Your task to perform on an android device: turn vacation reply on in the gmail app Image 0: 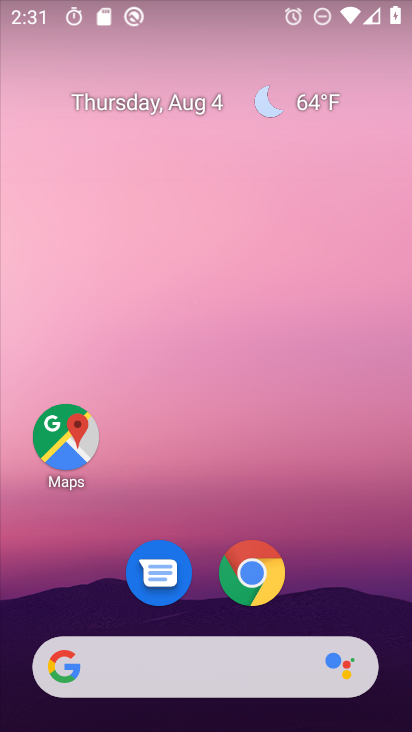
Step 0: drag from (363, 574) to (358, 133)
Your task to perform on an android device: turn vacation reply on in the gmail app Image 1: 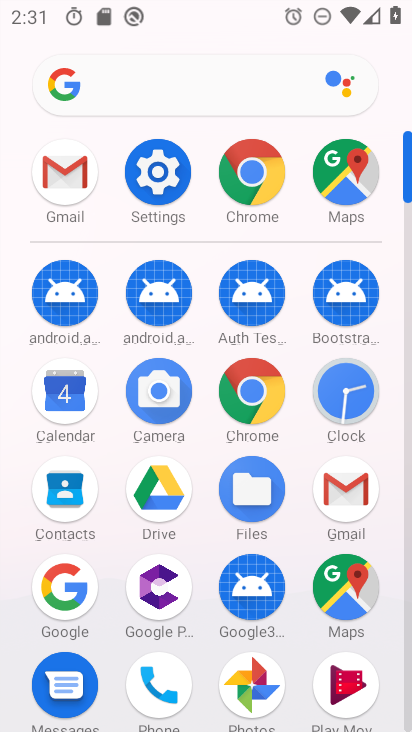
Step 1: click (353, 490)
Your task to perform on an android device: turn vacation reply on in the gmail app Image 2: 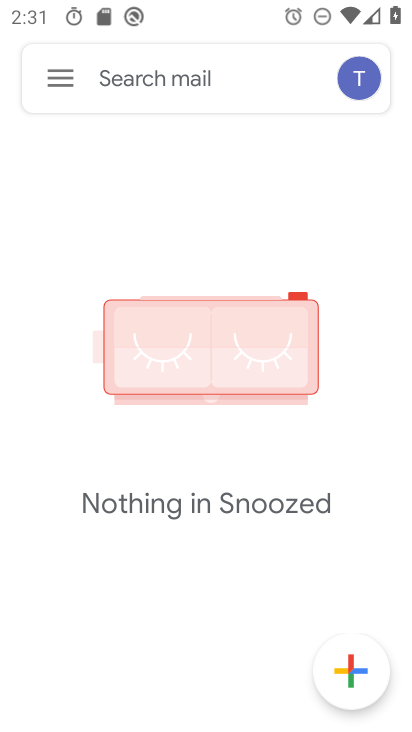
Step 2: click (71, 73)
Your task to perform on an android device: turn vacation reply on in the gmail app Image 3: 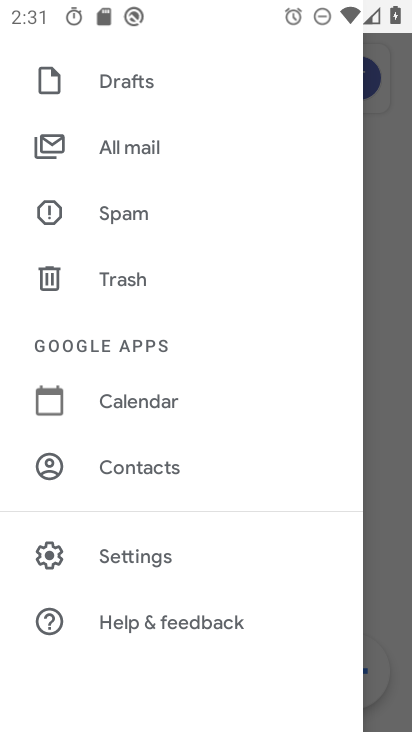
Step 3: click (162, 556)
Your task to perform on an android device: turn vacation reply on in the gmail app Image 4: 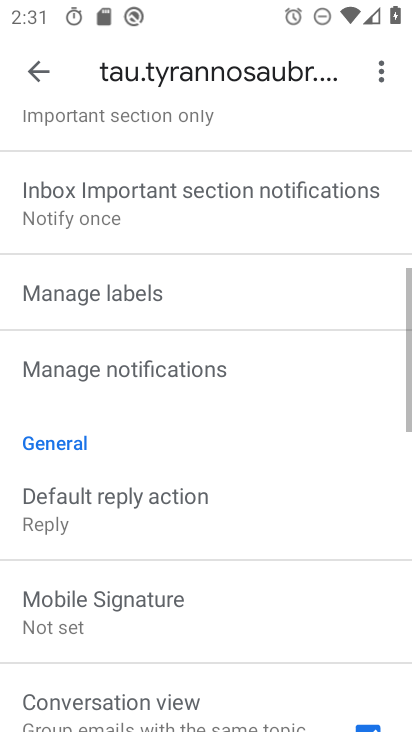
Step 4: drag from (162, 556) to (183, 80)
Your task to perform on an android device: turn vacation reply on in the gmail app Image 5: 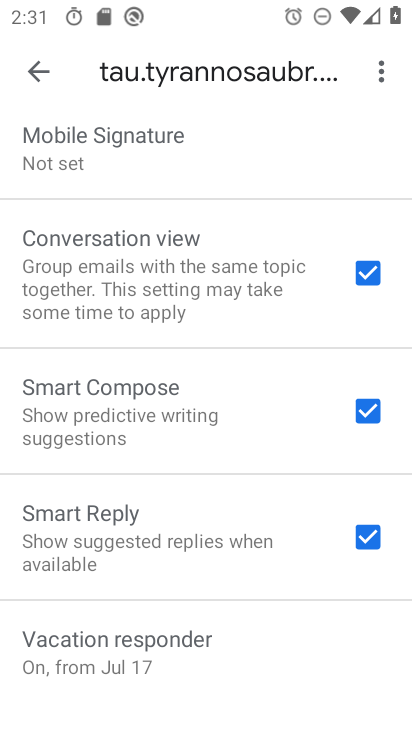
Step 5: click (152, 652)
Your task to perform on an android device: turn vacation reply on in the gmail app Image 6: 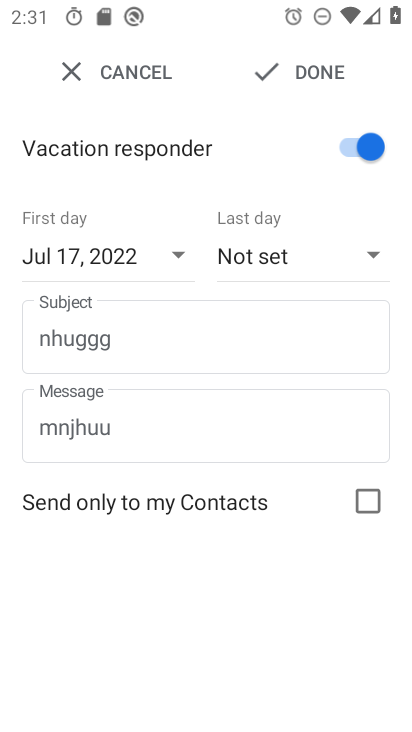
Step 6: task complete